Your task to perform on an android device: change the clock display to digital Image 0: 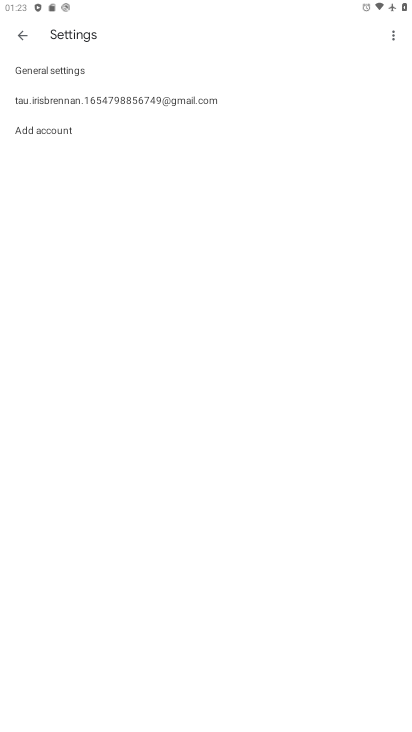
Step 0: press home button
Your task to perform on an android device: change the clock display to digital Image 1: 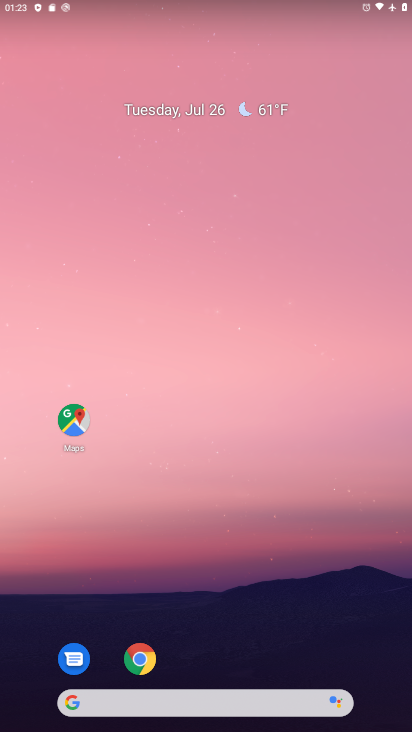
Step 1: drag from (322, 619) to (221, 69)
Your task to perform on an android device: change the clock display to digital Image 2: 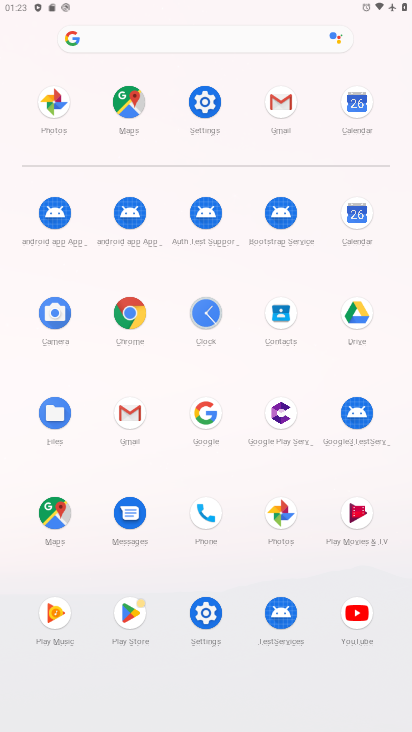
Step 2: click (203, 332)
Your task to perform on an android device: change the clock display to digital Image 3: 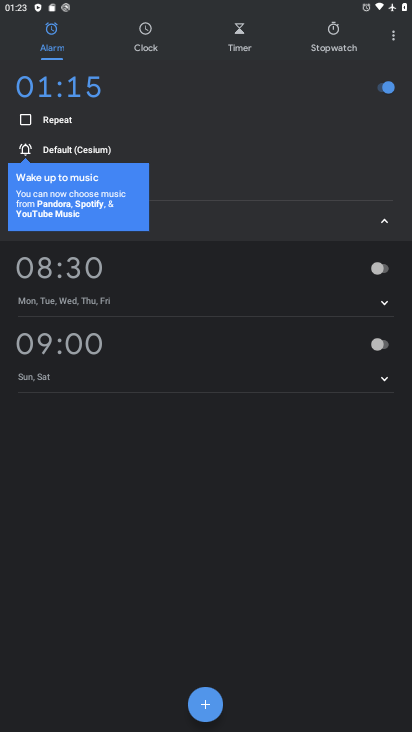
Step 3: click (392, 29)
Your task to perform on an android device: change the clock display to digital Image 4: 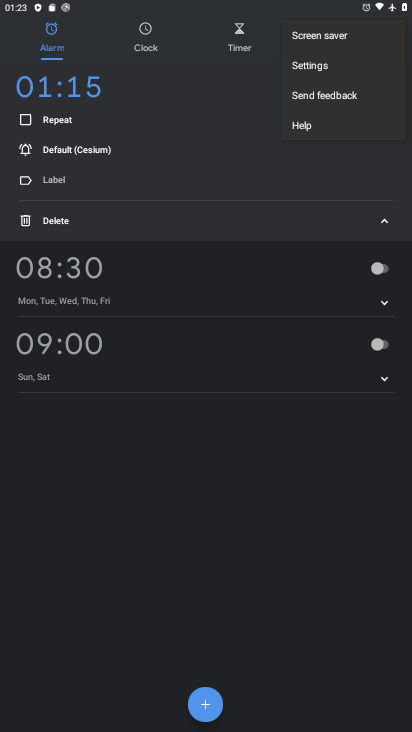
Step 4: click (303, 71)
Your task to perform on an android device: change the clock display to digital Image 5: 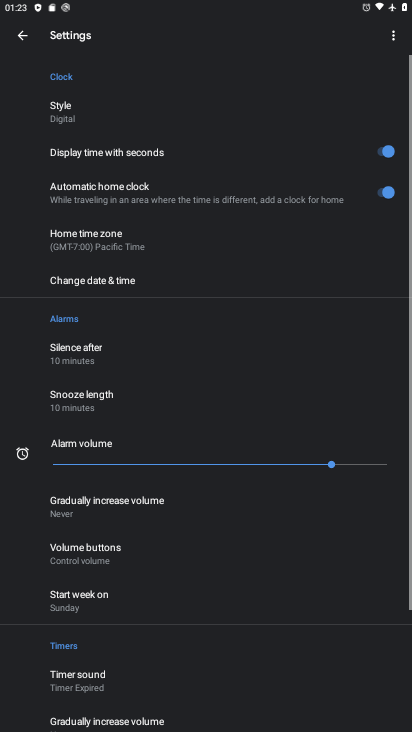
Step 5: click (86, 118)
Your task to perform on an android device: change the clock display to digital Image 6: 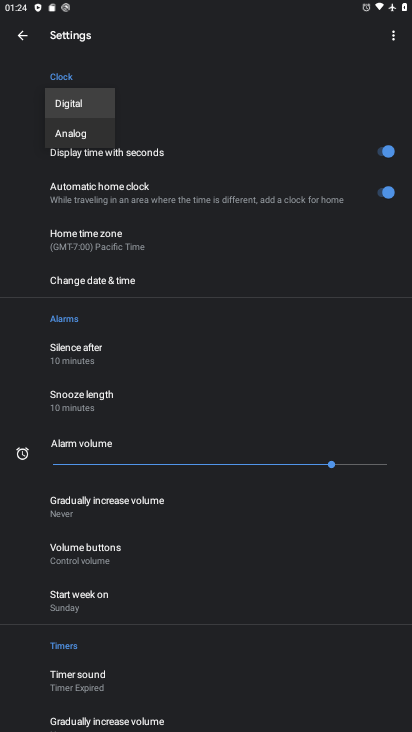
Step 6: task complete